Your task to perform on an android device: Check the weather Image 0: 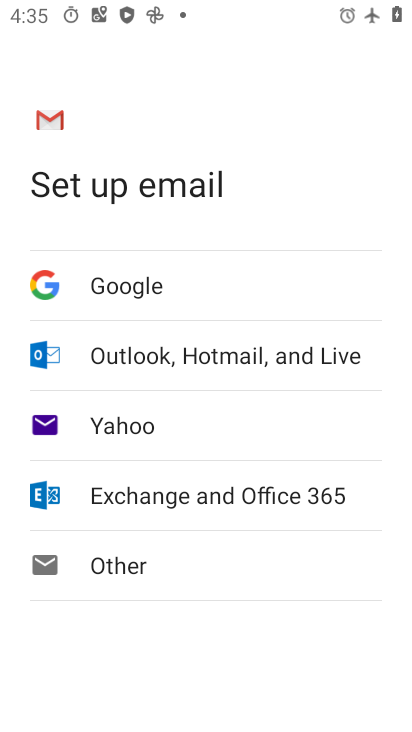
Step 0: press home button
Your task to perform on an android device: Check the weather Image 1: 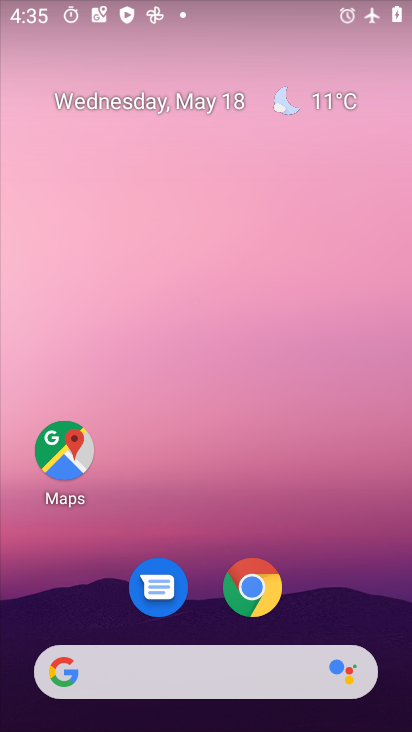
Step 1: drag from (198, 624) to (182, 325)
Your task to perform on an android device: Check the weather Image 2: 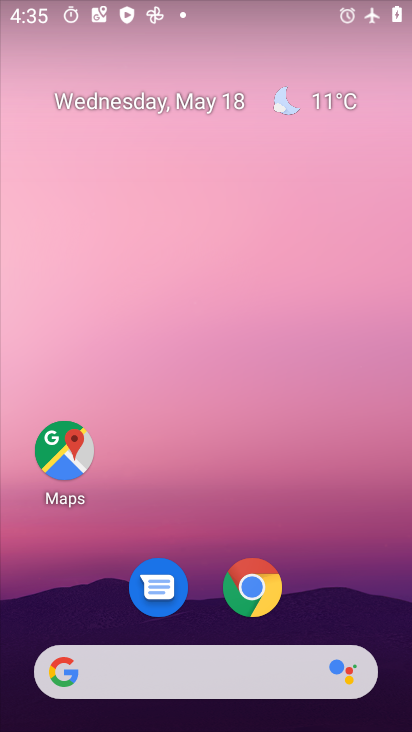
Step 2: drag from (190, 542) to (218, 0)
Your task to perform on an android device: Check the weather Image 3: 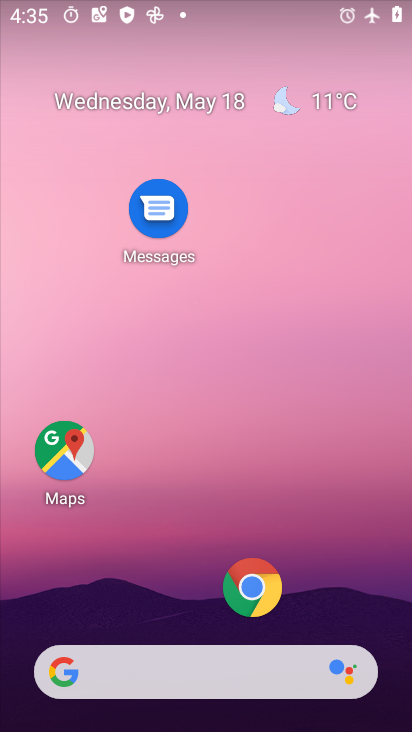
Step 3: drag from (315, 719) to (310, 224)
Your task to perform on an android device: Check the weather Image 4: 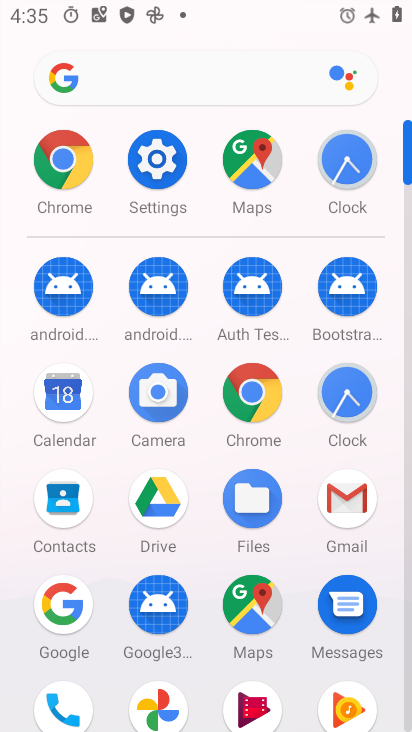
Step 4: click (55, 598)
Your task to perform on an android device: Check the weather Image 5: 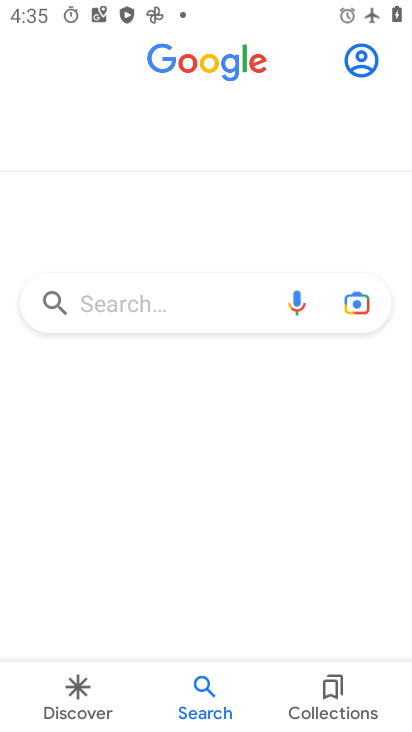
Step 5: click (149, 316)
Your task to perform on an android device: Check the weather Image 6: 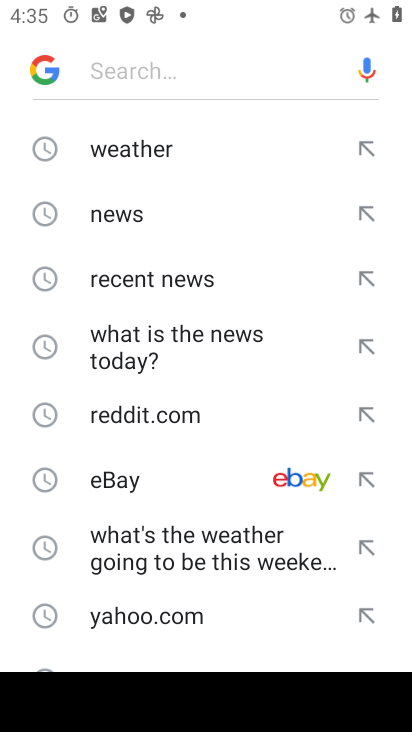
Step 6: click (161, 161)
Your task to perform on an android device: Check the weather Image 7: 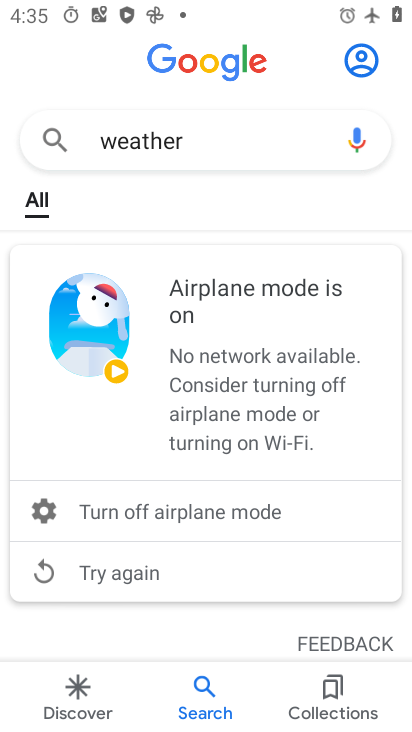
Step 7: task complete